Your task to perform on an android device: Search for "acer nitro" on target.com, select the first entry, add it to the cart, then select checkout. Image 0: 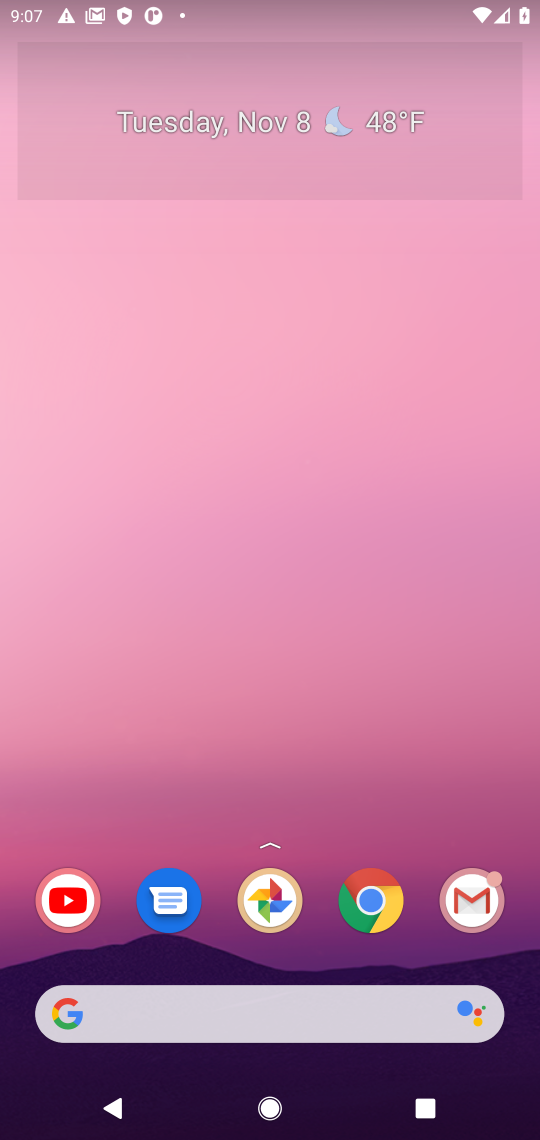
Step 0: click (357, 890)
Your task to perform on an android device: Search for "acer nitro" on target.com, select the first entry, add it to the cart, then select checkout. Image 1: 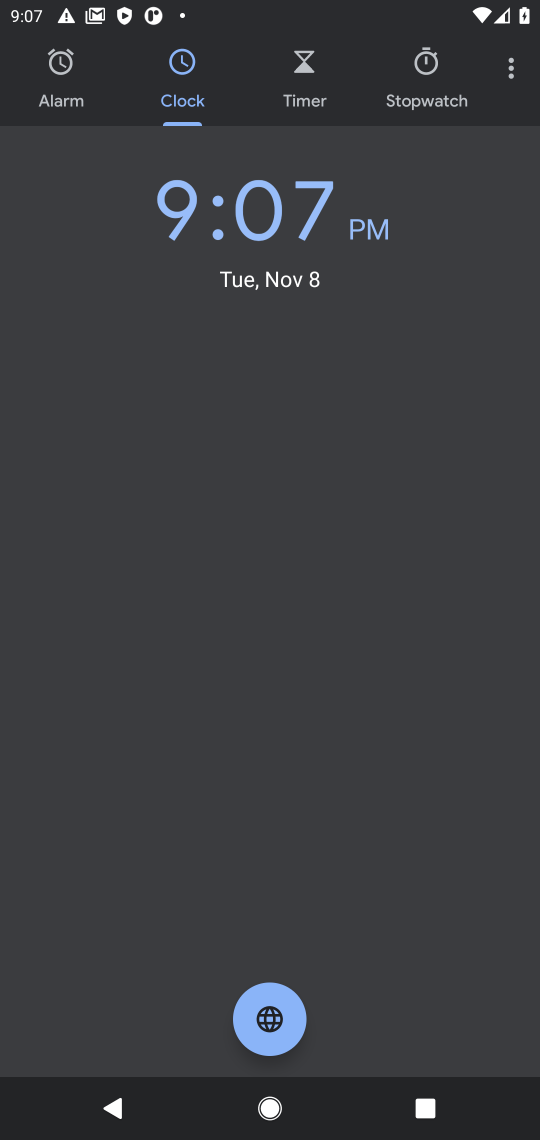
Step 1: press home button
Your task to perform on an android device: Search for "acer nitro" on target.com, select the first entry, add it to the cart, then select checkout. Image 2: 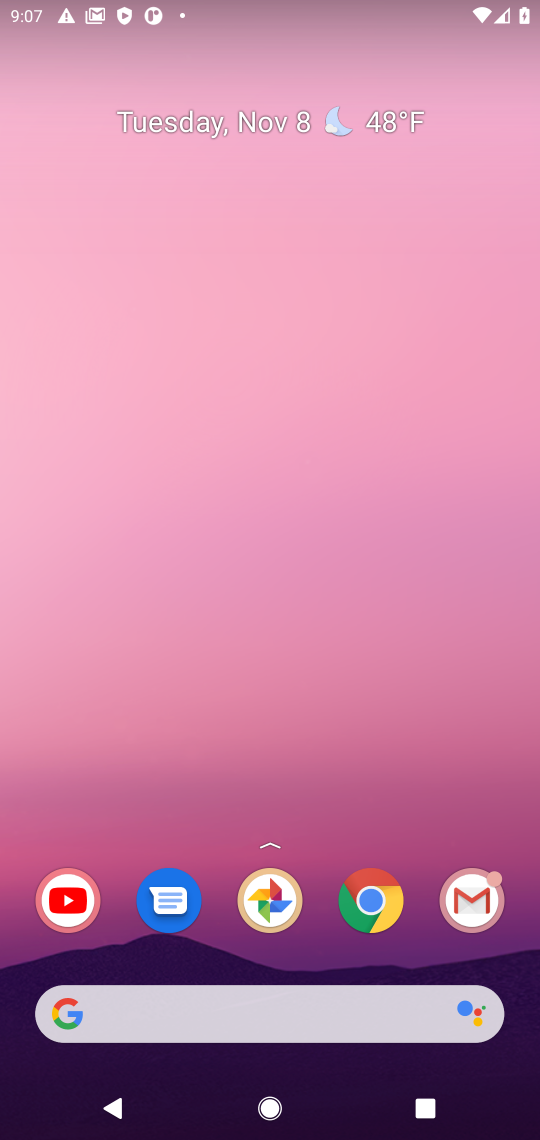
Step 2: click (383, 912)
Your task to perform on an android device: Search for "acer nitro" on target.com, select the first entry, add it to the cart, then select checkout. Image 3: 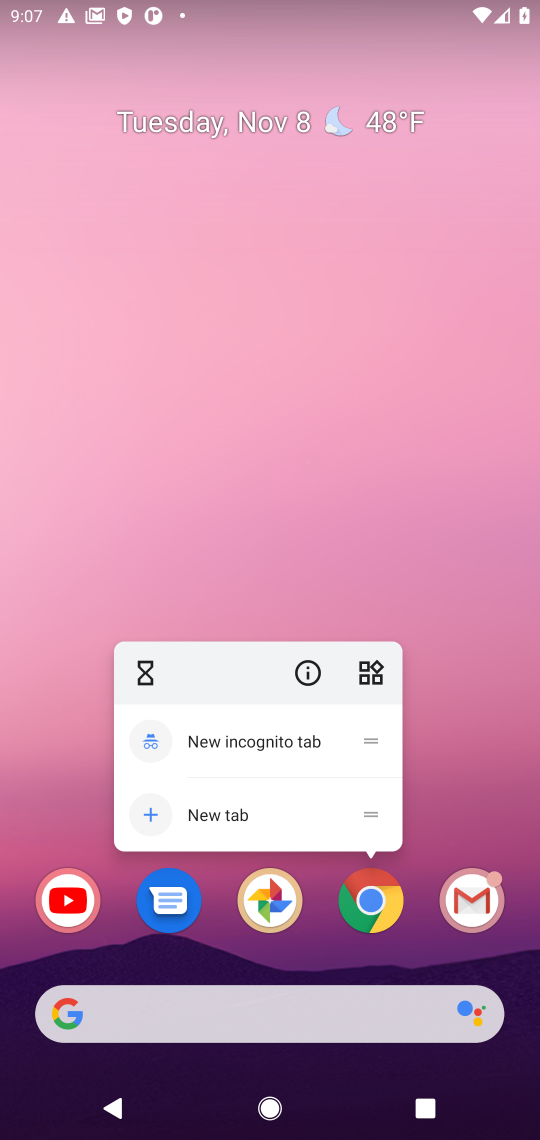
Step 3: click (240, 740)
Your task to perform on an android device: Search for "acer nitro" on target.com, select the first entry, add it to the cart, then select checkout. Image 4: 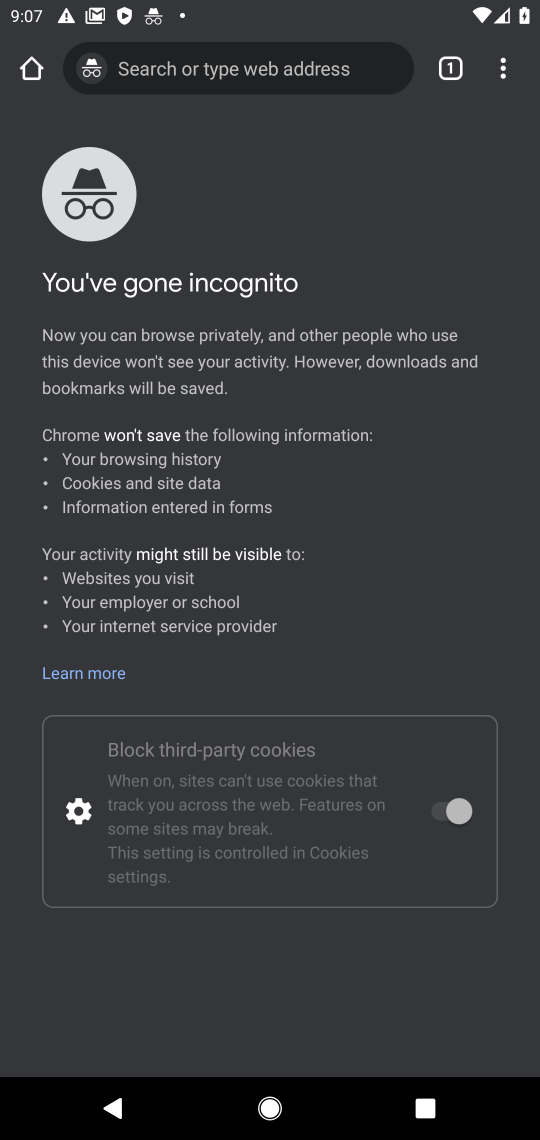
Step 4: press back button
Your task to perform on an android device: Search for "acer nitro" on target.com, select the first entry, add it to the cart, then select checkout. Image 5: 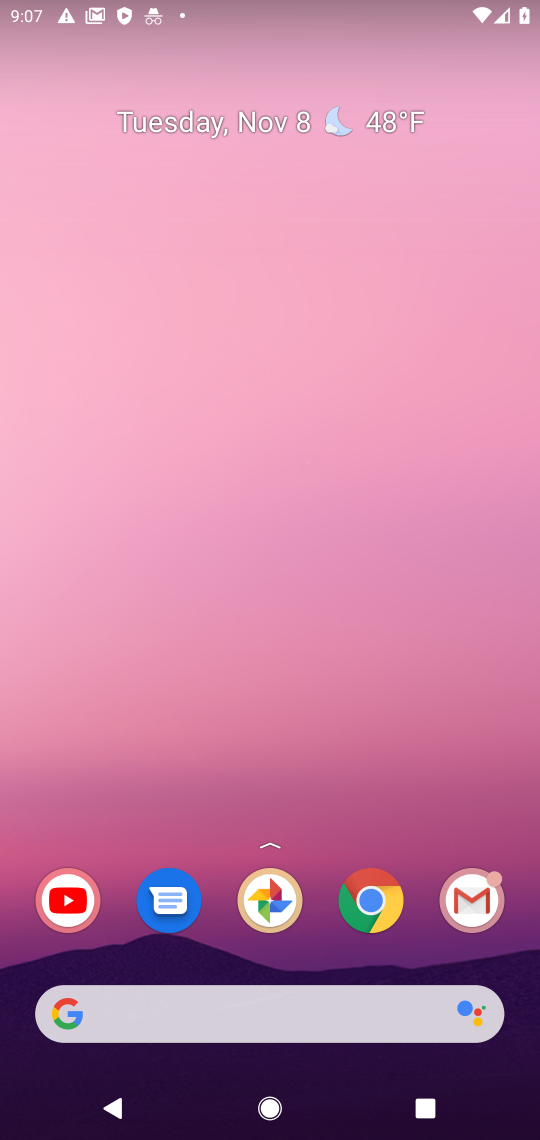
Step 5: click (379, 897)
Your task to perform on an android device: Search for "acer nitro" on target.com, select the first entry, add it to the cart, then select checkout. Image 6: 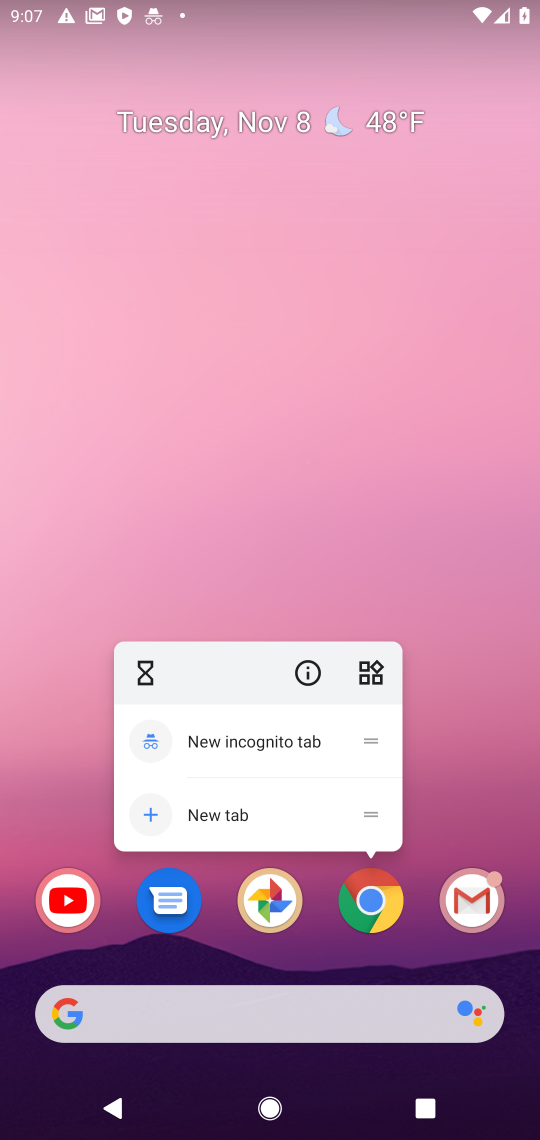
Step 6: click (379, 897)
Your task to perform on an android device: Search for "acer nitro" on target.com, select the first entry, add it to the cart, then select checkout. Image 7: 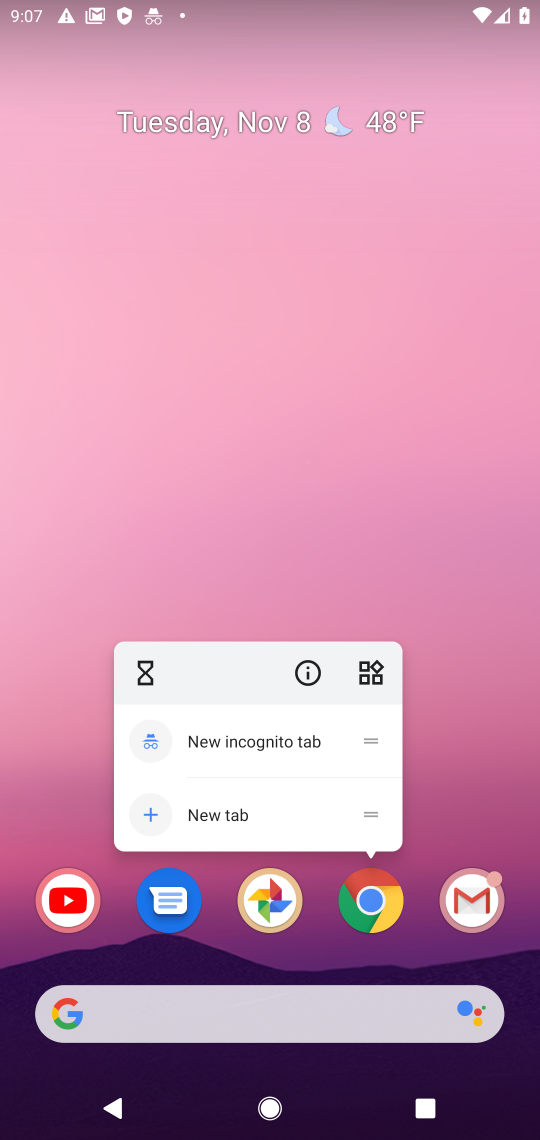
Step 7: click (379, 897)
Your task to perform on an android device: Search for "acer nitro" on target.com, select the first entry, add it to the cart, then select checkout. Image 8: 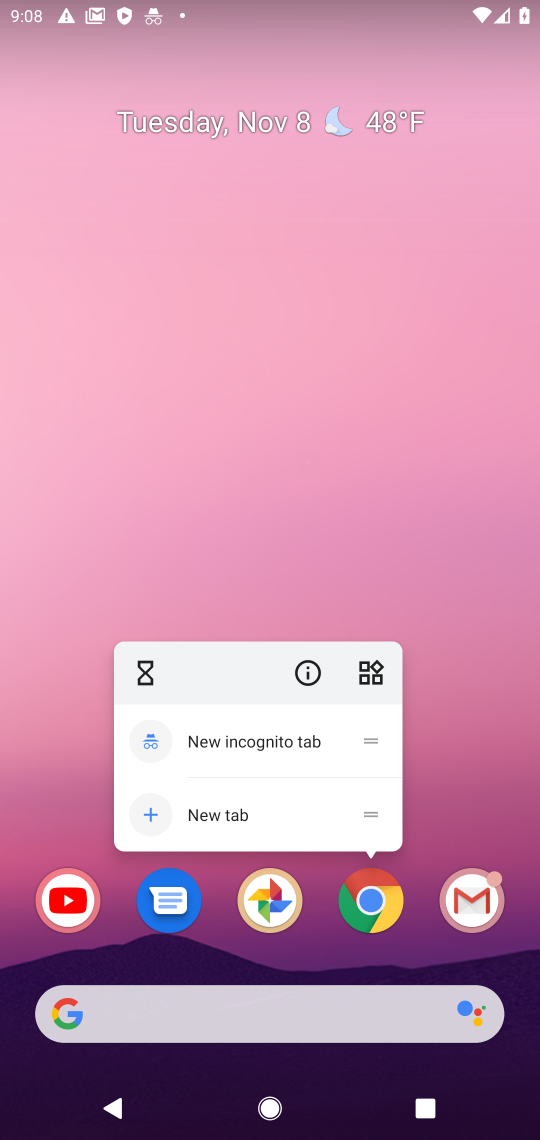
Step 8: click (384, 895)
Your task to perform on an android device: Search for "acer nitro" on target.com, select the first entry, add it to the cart, then select checkout. Image 9: 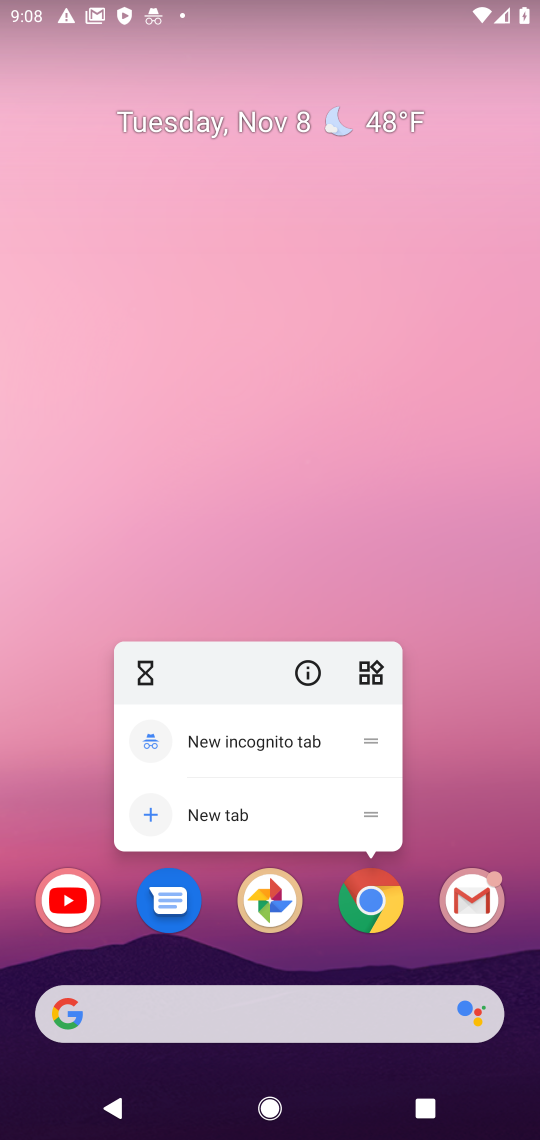
Step 9: click (370, 913)
Your task to perform on an android device: Search for "acer nitro" on target.com, select the first entry, add it to the cart, then select checkout. Image 10: 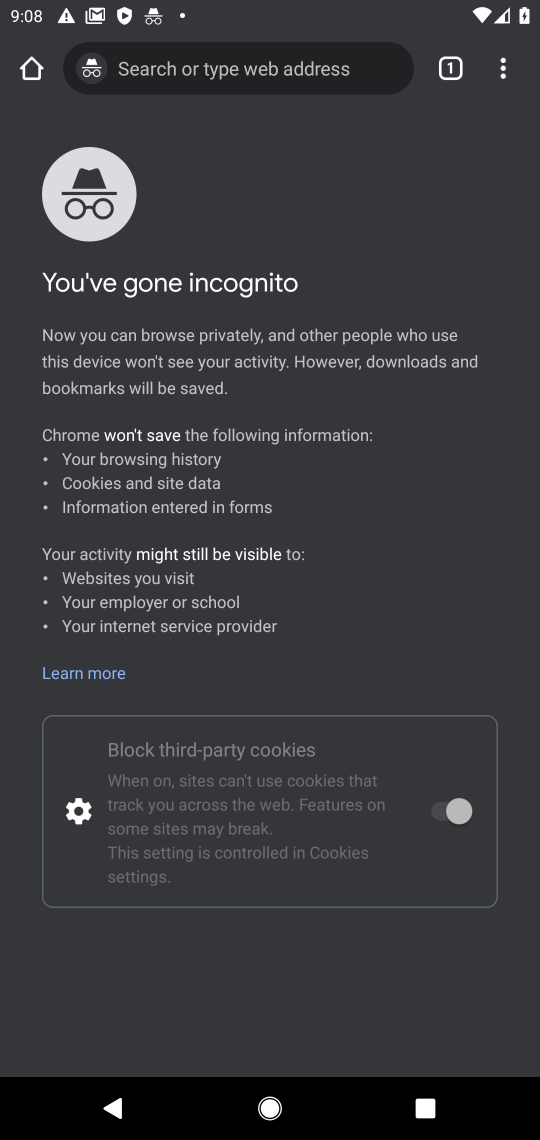
Step 10: press back button
Your task to perform on an android device: Search for "acer nitro" on target.com, select the first entry, add it to the cart, then select checkout. Image 11: 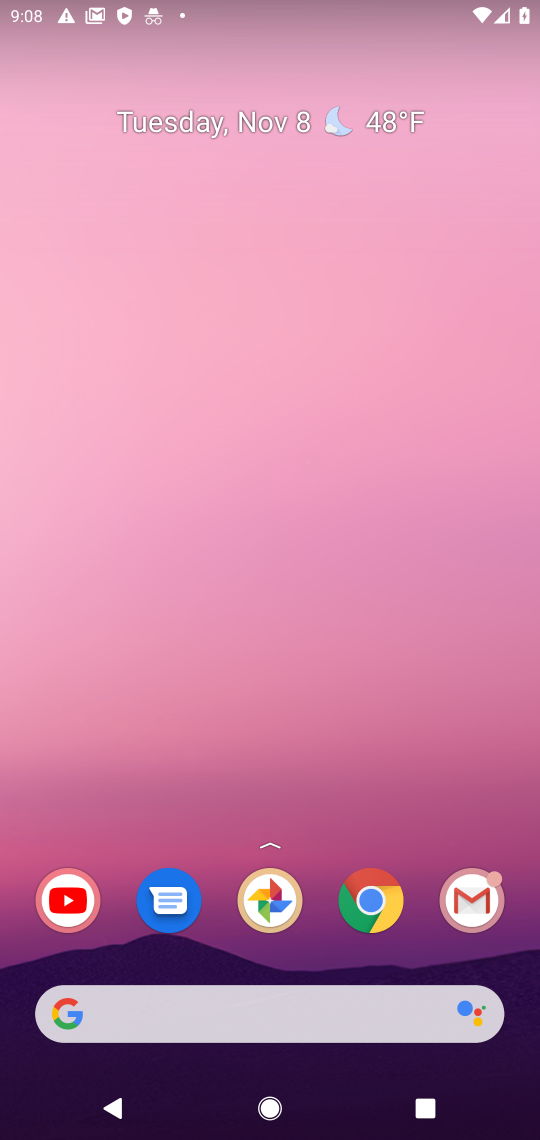
Step 11: click (383, 916)
Your task to perform on an android device: Search for "acer nitro" on target.com, select the first entry, add it to the cart, then select checkout. Image 12: 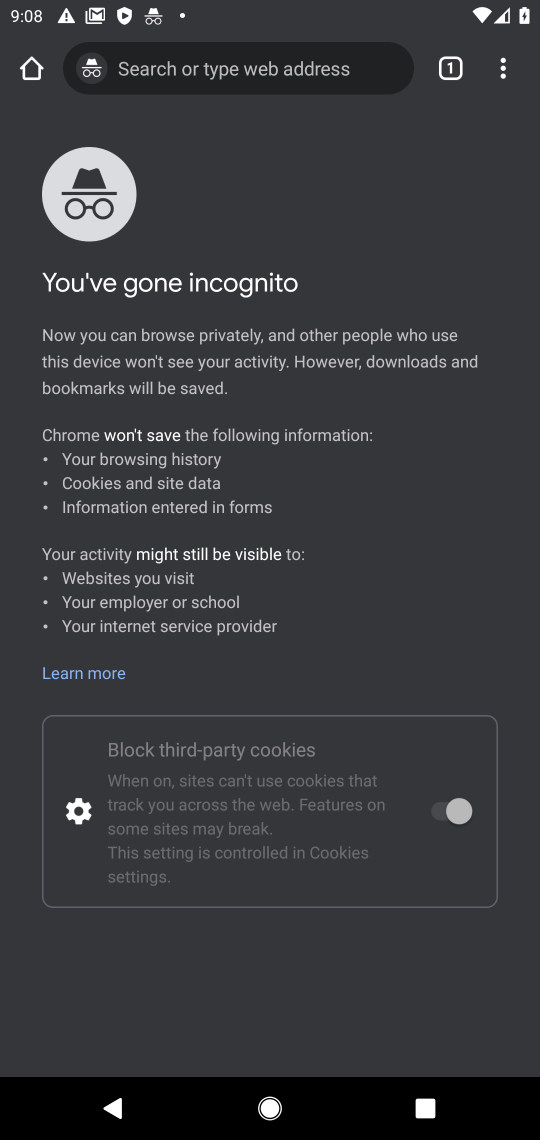
Step 12: click (348, 67)
Your task to perform on an android device: Search for "acer nitro" on target.com, select the first entry, add it to the cart, then select checkout. Image 13: 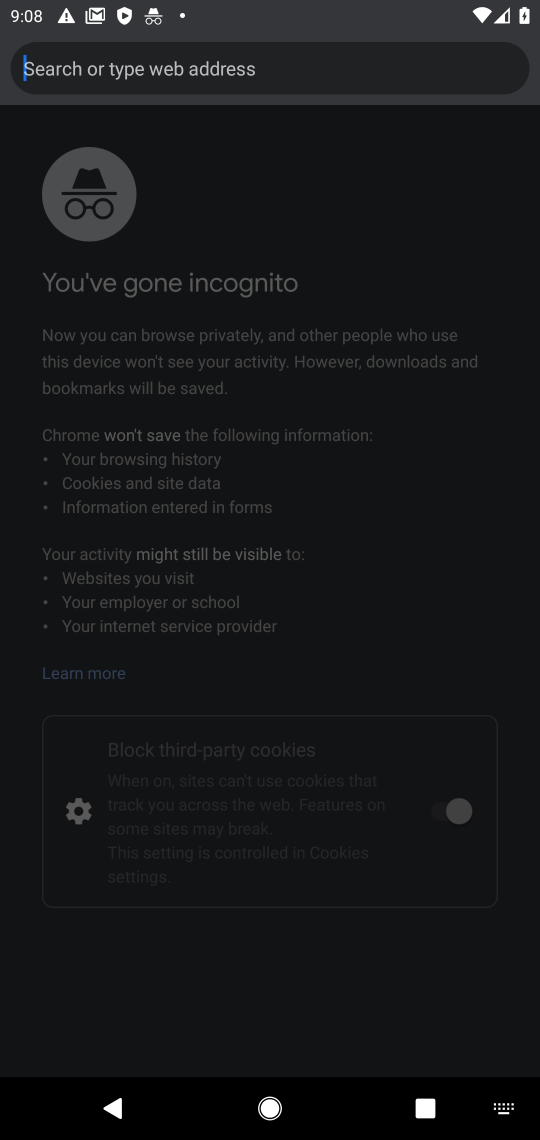
Step 13: press home button
Your task to perform on an android device: Search for "acer nitro" on target.com, select the first entry, add it to the cart, then select checkout. Image 14: 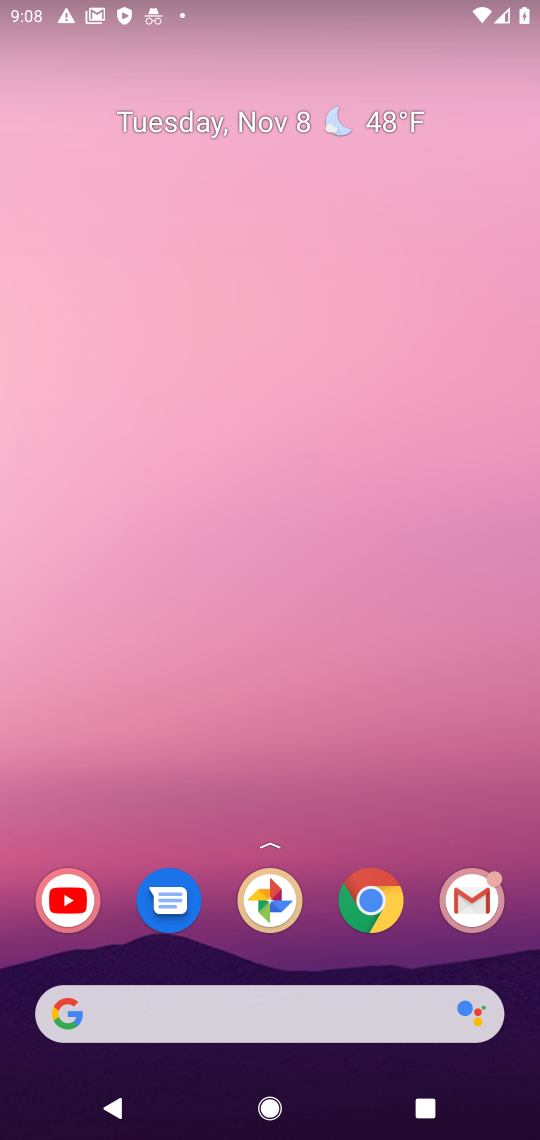
Step 14: click (378, 928)
Your task to perform on an android device: Search for "acer nitro" on target.com, select the first entry, add it to the cart, then select checkout. Image 15: 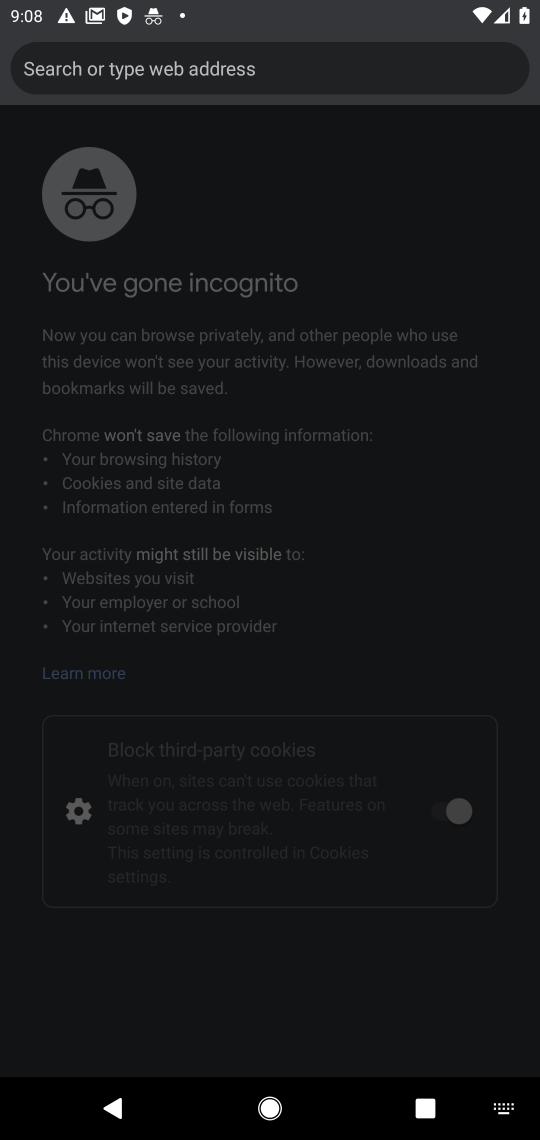
Step 15: press back button
Your task to perform on an android device: Search for "acer nitro" on target.com, select the first entry, add it to the cart, then select checkout. Image 16: 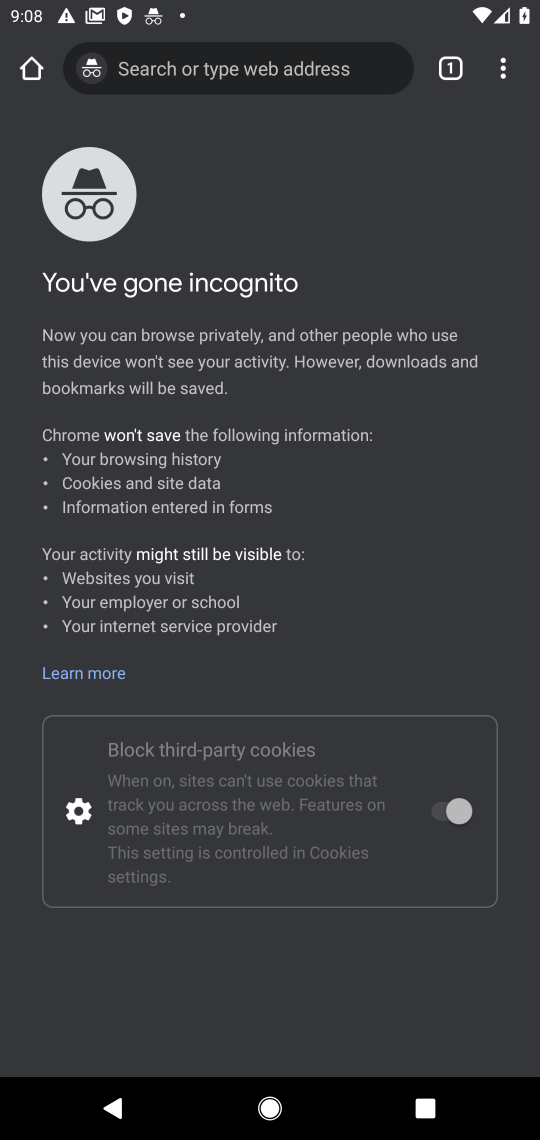
Step 16: click (452, 77)
Your task to perform on an android device: Search for "acer nitro" on target.com, select the first entry, add it to the cart, then select checkout. Image 17: 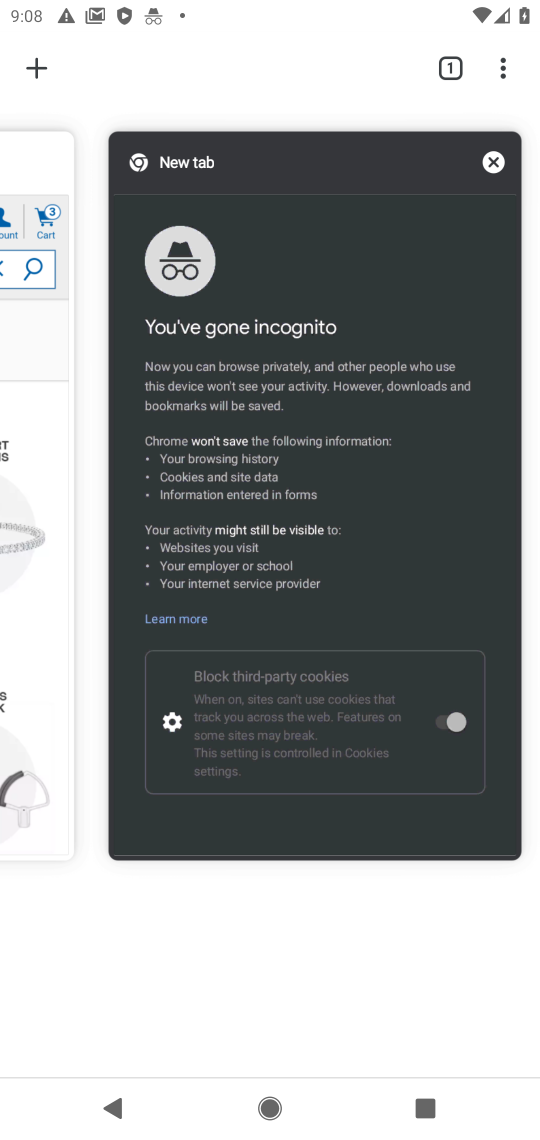
Step 17: click (503, 163)
Your task to perform on an android device: Search for "acer nitro" on target.com, select the first entry, add it to the cart, then select checkout. Image 18: 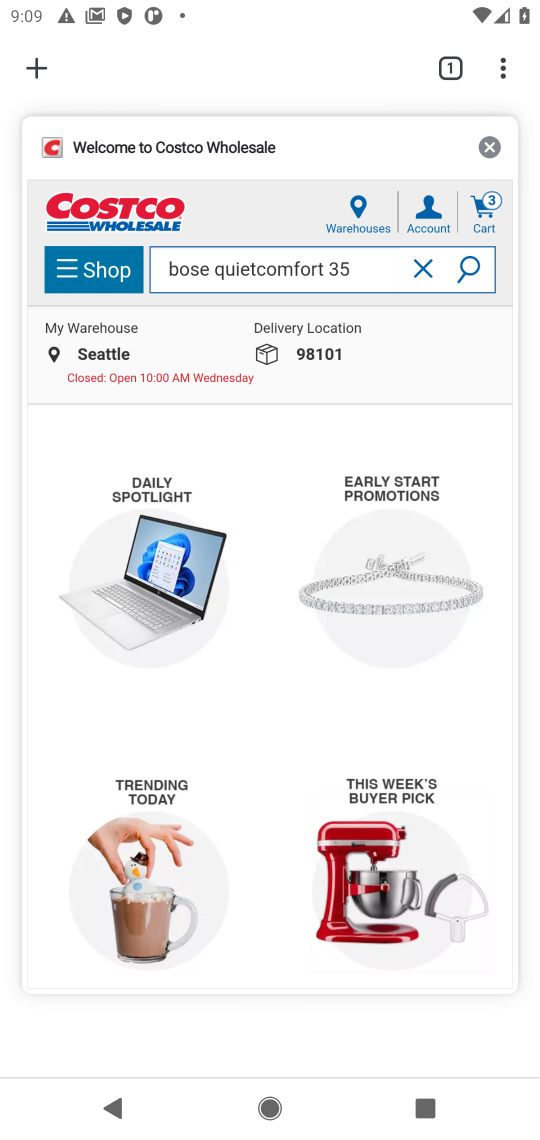
Step 18: click (148, 147)
Your task to perform on an android device: Search for "acer nitro" on target.com, select the first entry, add it to the cart, then select checkout. Image 19: 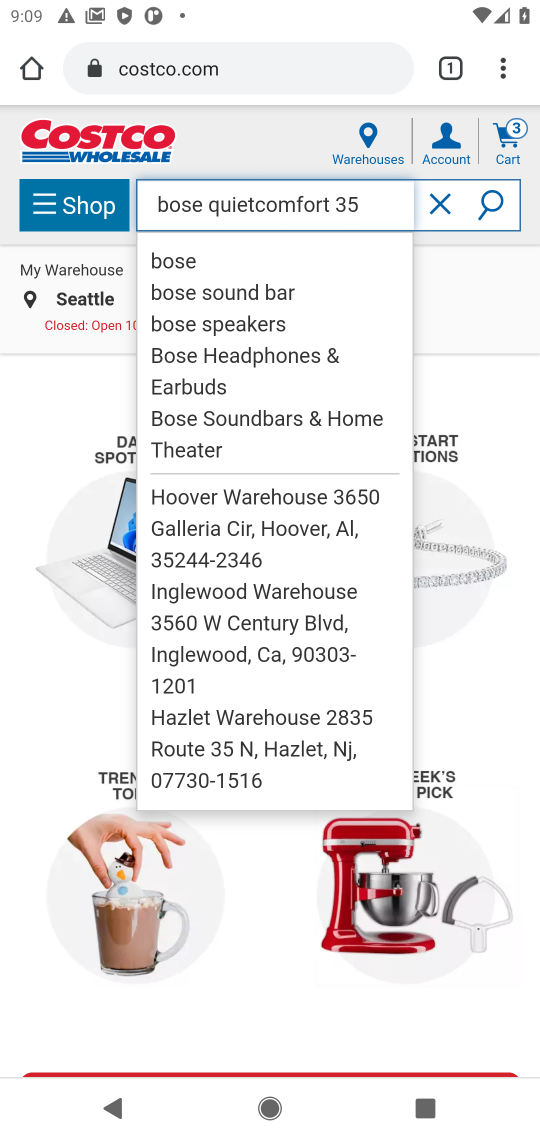
Step 19: click (228, 75)
Your task to perform on an android device: Search for "acer nitro" on target.com, select the first entry, add it to the cart, then select checkout. Image 20: 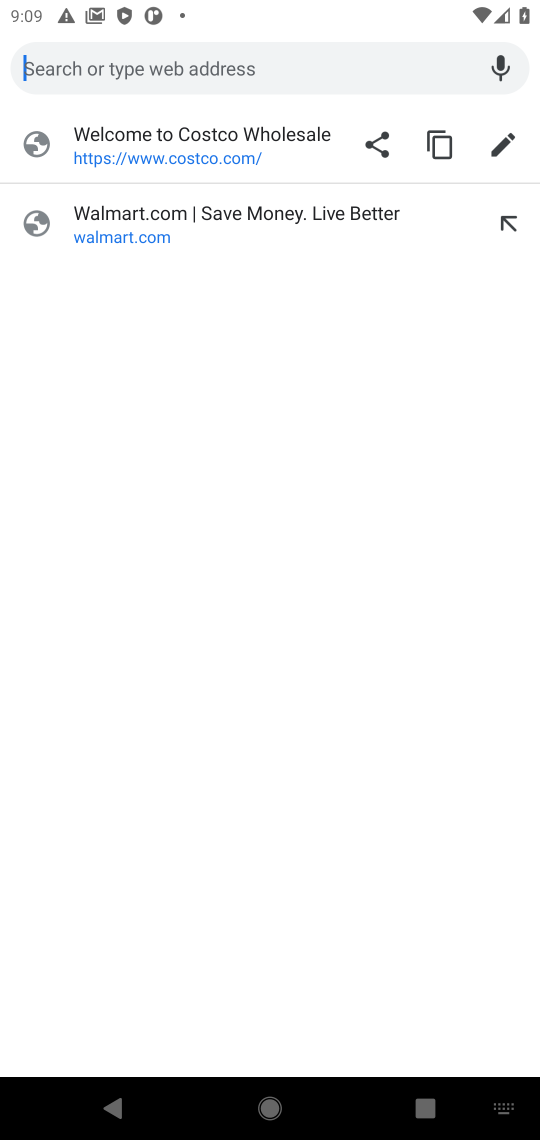
Step 20: type "target"
Your task to perform on an android device: Search for "acer nitro" on target.com, select the first entry, add it to the cart, then select checkout. Image 21: 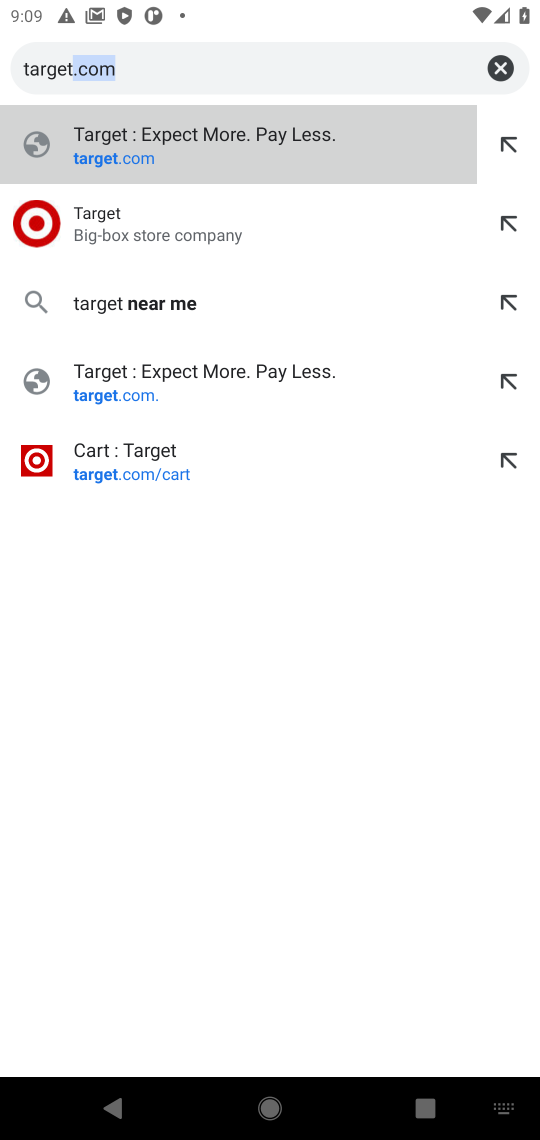
Step 21: type ""
Your task to perform on an android device: Search for "acer nitro" on target.com, select the first entry, add it to the cart, then select checkout. Image 22: 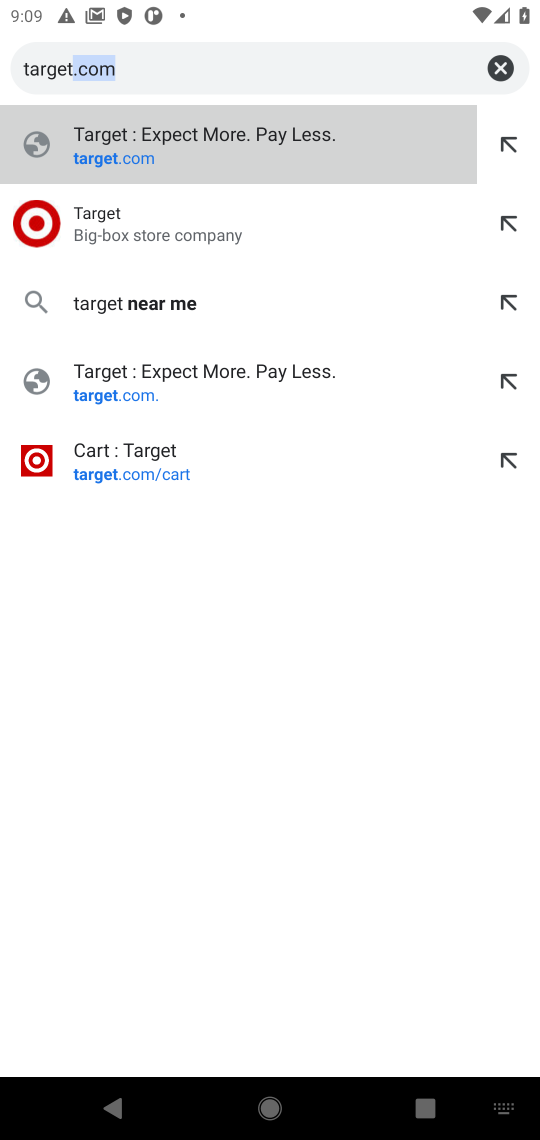
Step 22: click (144, 231)
Your task to perform on an android device: Search for "acer nitro" on target.com, select the first entry, add it to the cart, then select checkout. Image 23: 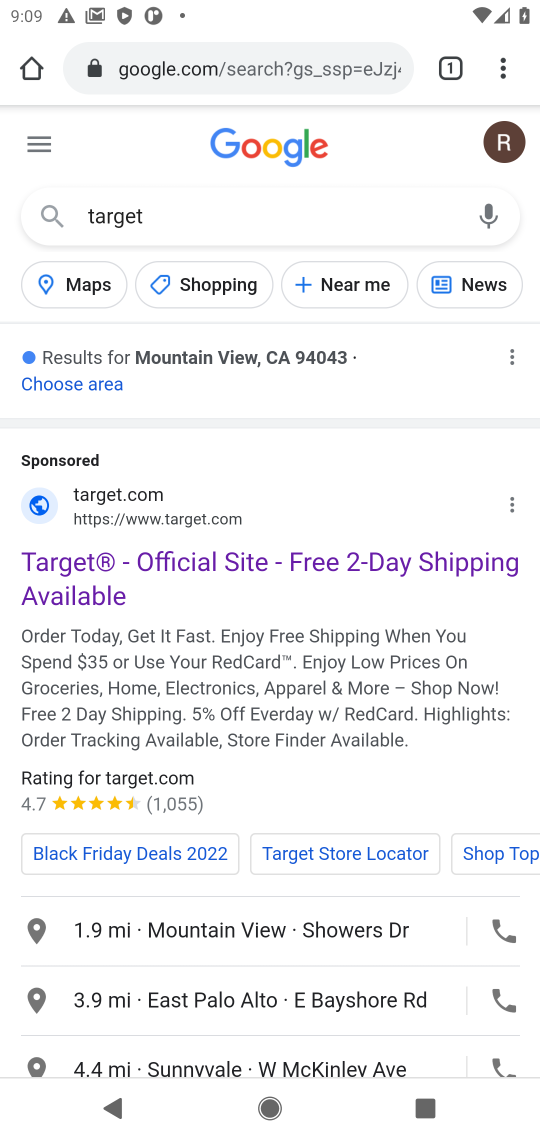
Step 23: drag from (199, 686) to (257, 283)
Your task to perform on an android device: Search for "acer nitro" on target.com, select the first entry, add it to the cart, then select checkout. Image 24: 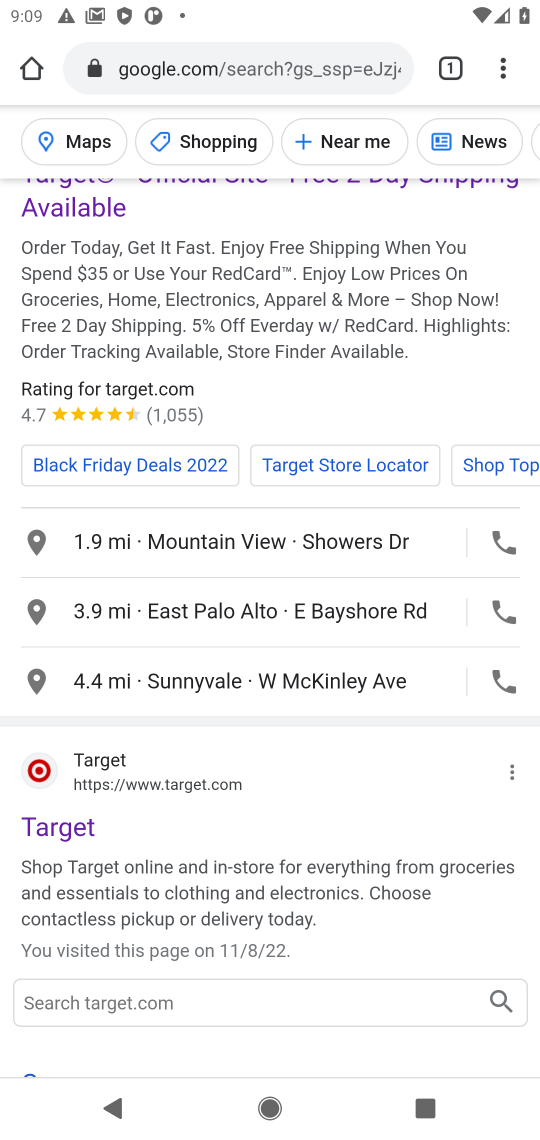
Step 24: click (52, 821)
Your task to perform on an android device: Search for "acer nitro" on target.com, select the first entry, add it to the cart, then select checkout. Image 25: 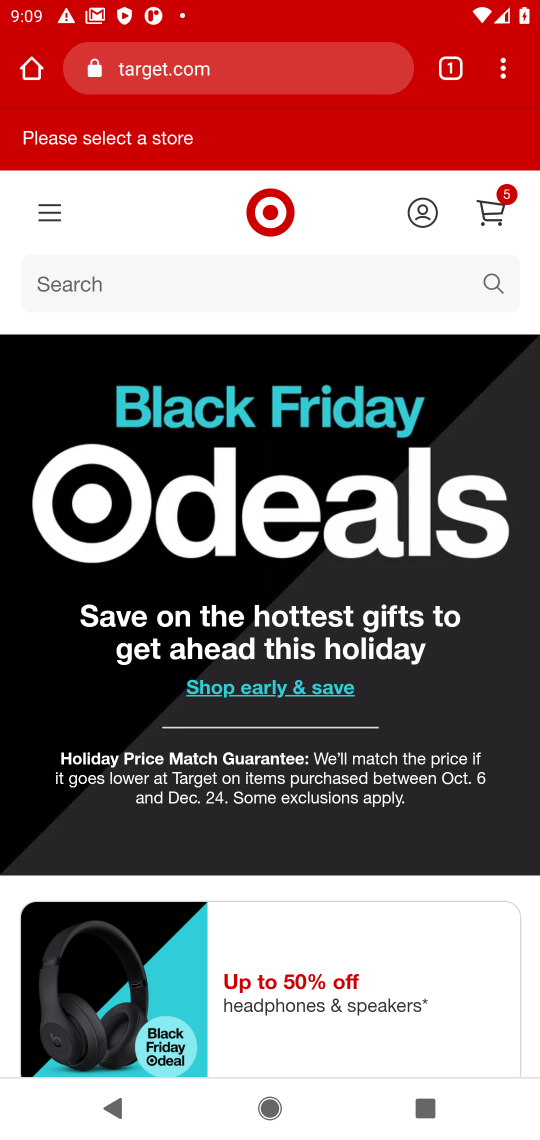
Step 25: click (489, 265)
Your task to perform on an android device: Search for "acer nitro" on target.com, select the first entry, add it to the cart, then select checkout. Image 26: 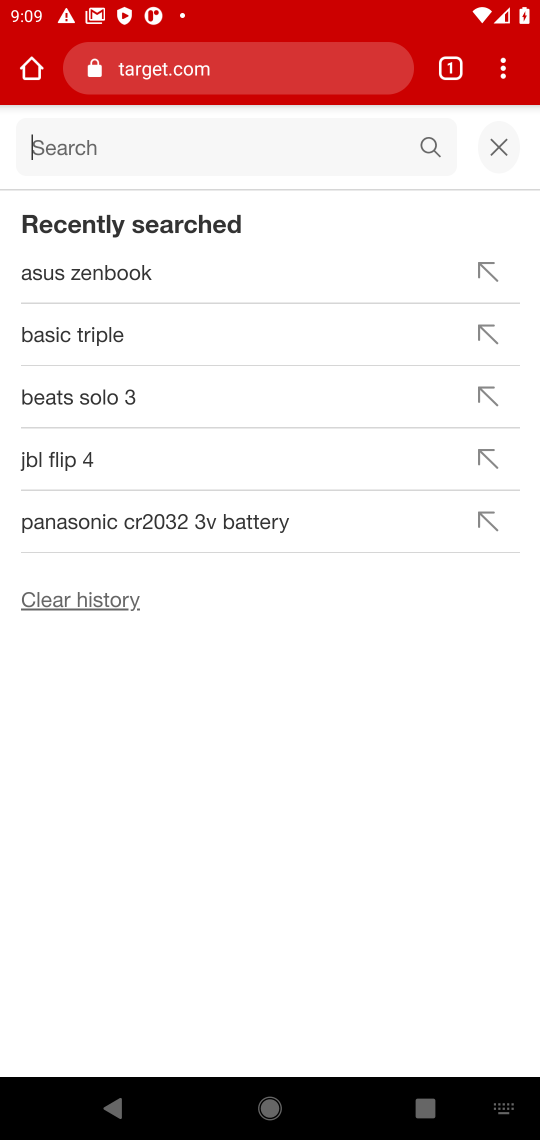
Step 26: type "acer nitro"
Your task to perform on an android device: Search for "acer nitro" on target.com, select the first entry, add it to the cart, then select checkout. Image 27: 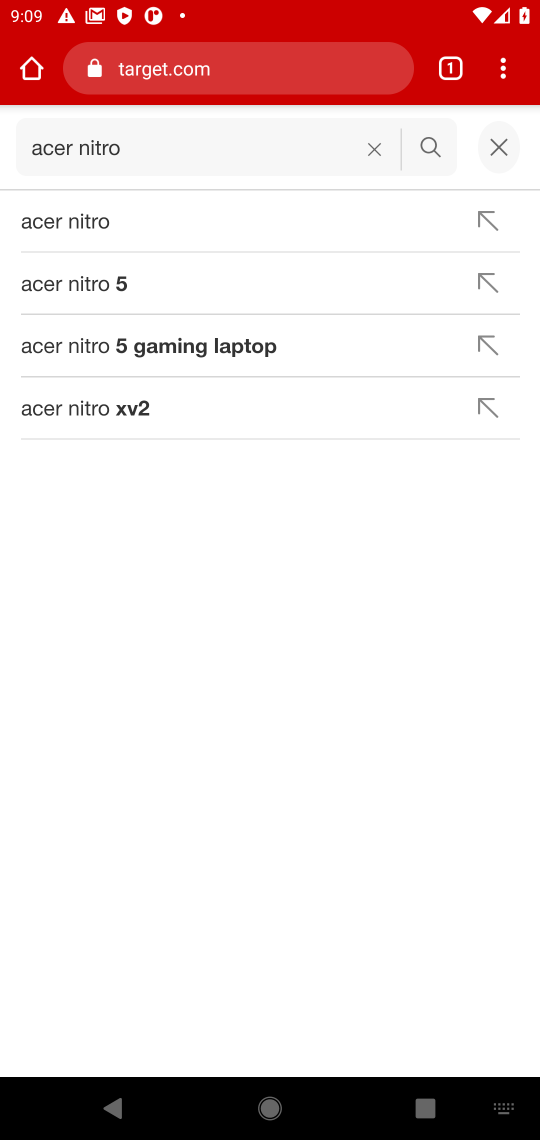
Step 27: click (32, 285)
Your task to perform on an android device: Search for "acer nitro" on target.com, select the first entry, add it to the cart, then select checkout. Image 28: 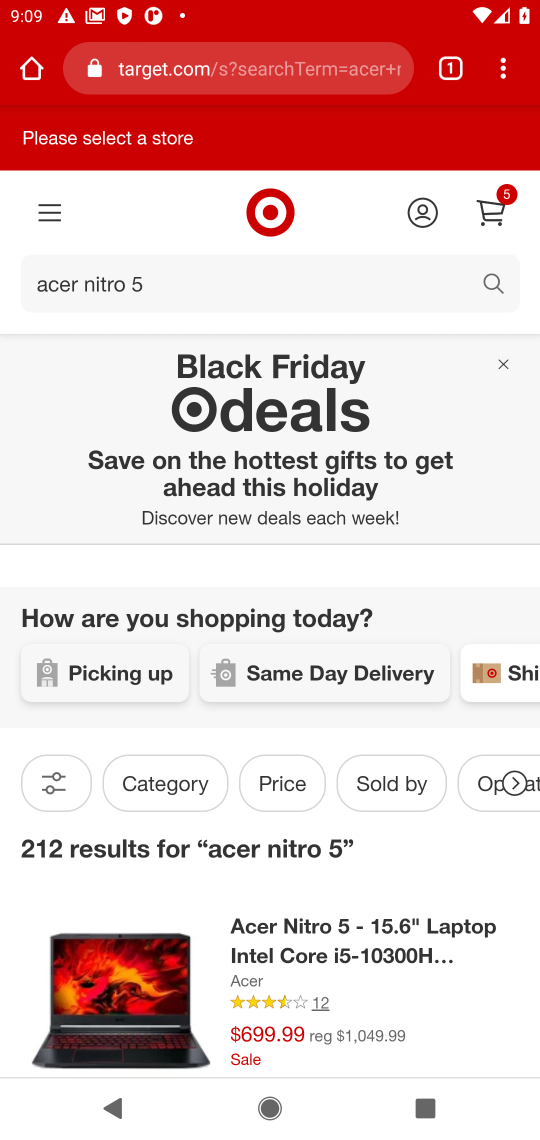
Step 28: click (283, 949)
Your task to perform on an android device: Search for "acer nitro" on target.com, select the first entry, add it to the cart, then select checkout. Image 29: 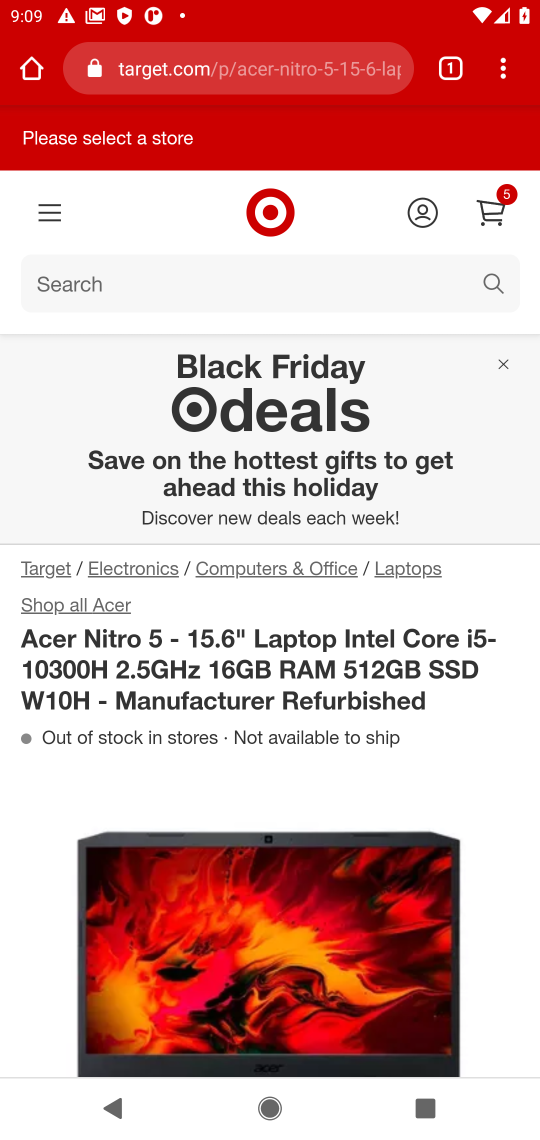
Step 29: drag from (269, 819) to (294, 293)
Your task to perform on an android device: Search for "acer nitro" on target.com, select the first entry, add it to the cart, then select checkout. Image 30: 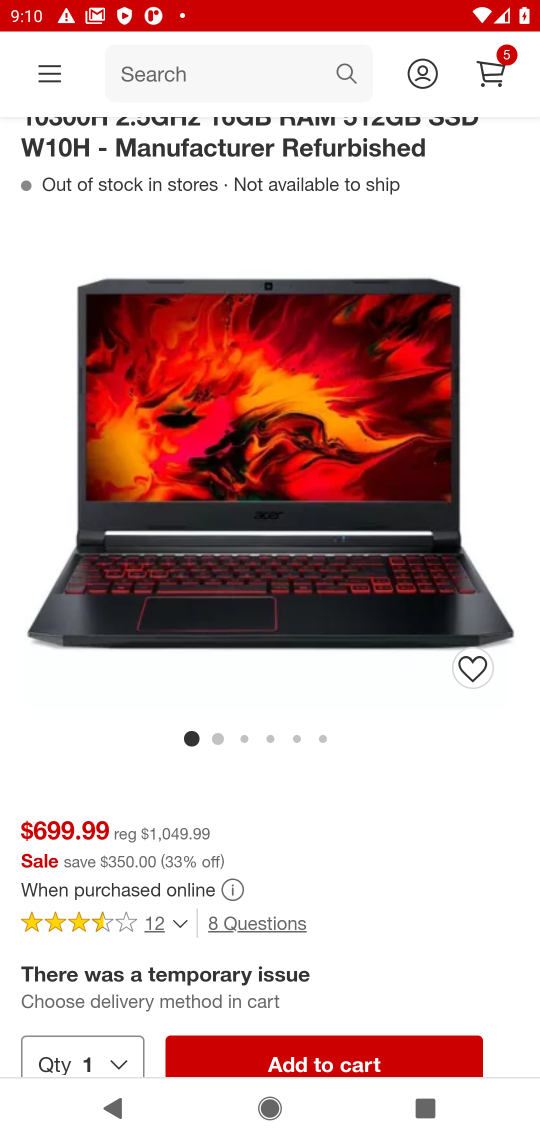
Step 30: click (297, 1066)
Your task to perform on an android device: Search for "acer nitro" on target.com, select the first entry, add it to the cart, then select checkout. Image 31: 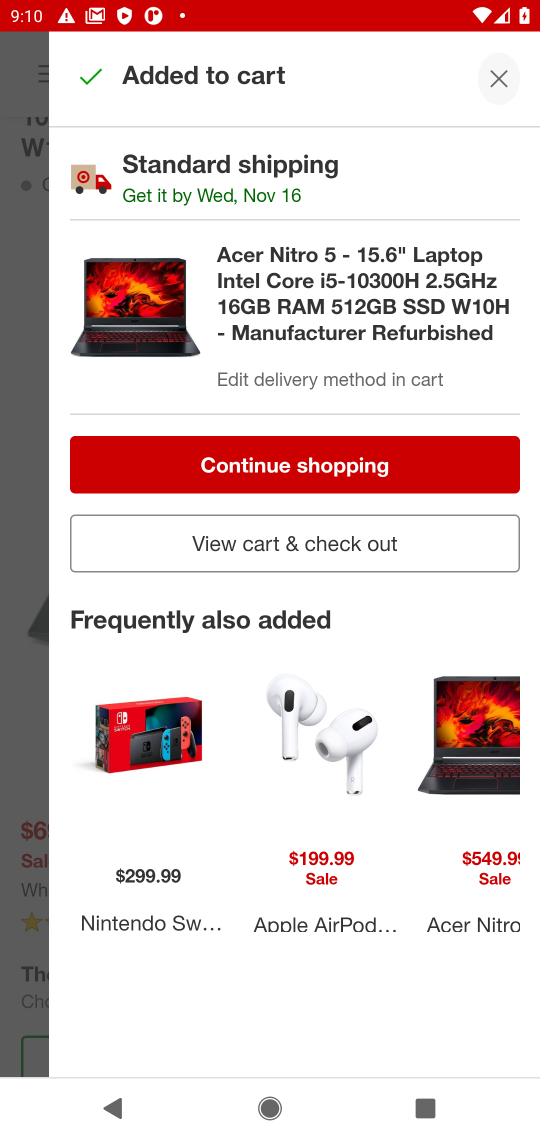
Step 31: click (261, 553)
Your task to perform on an android device: Search for "acer nitro" on target.com, select the first entry, add it to the cart, then select checkout. Image 32: 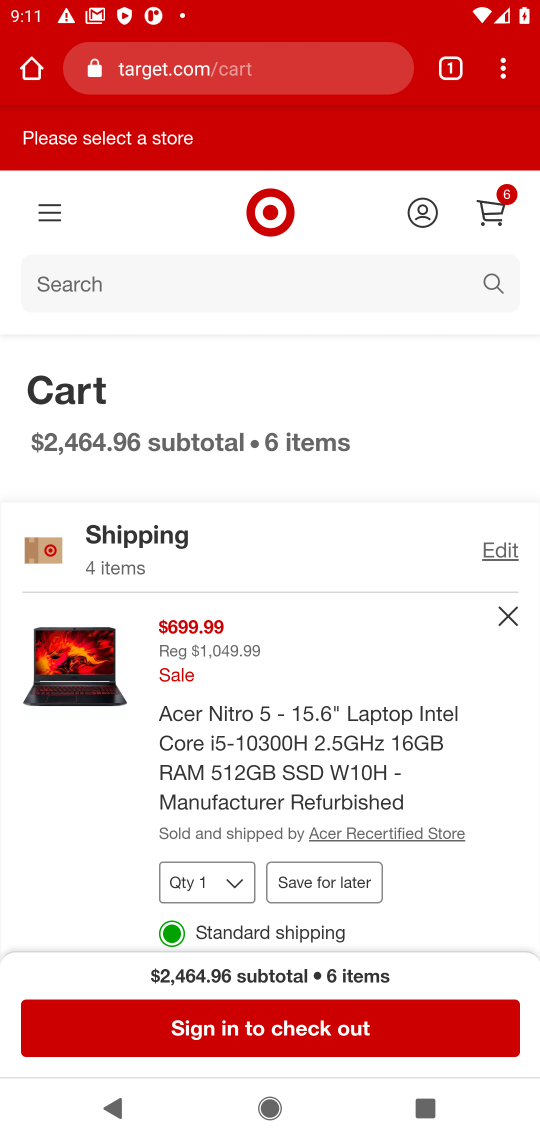
Step 32: click (375, 1043)
Your task to perform on an android device: Search for "acer nitro" on target.com, select the first entry, add it to the cart, then select checkout. Image 33: 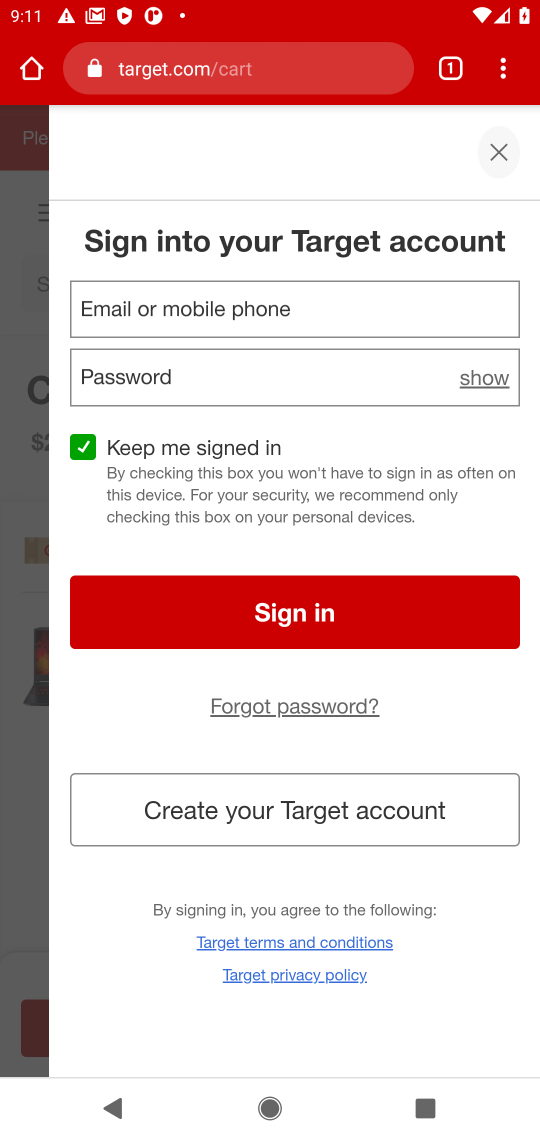
Step 33: task complete